Your task to perform on an android device: snooze an email in the gmail app Image 0: 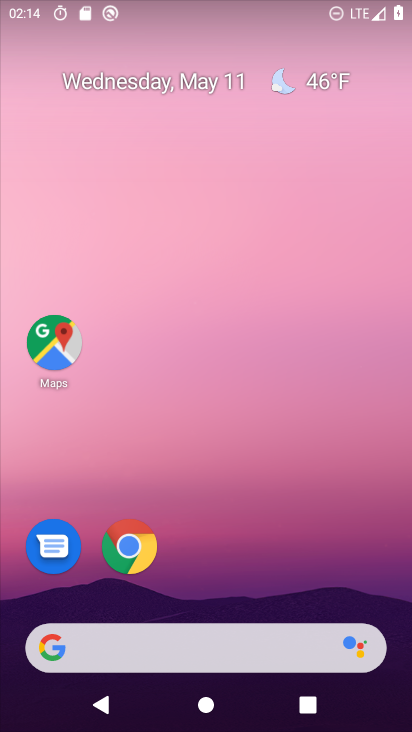
Step 0: drag from (294, 675) to (206, 193)
Your task to perform on an android device: snooze an email in the gmail app Image 1: 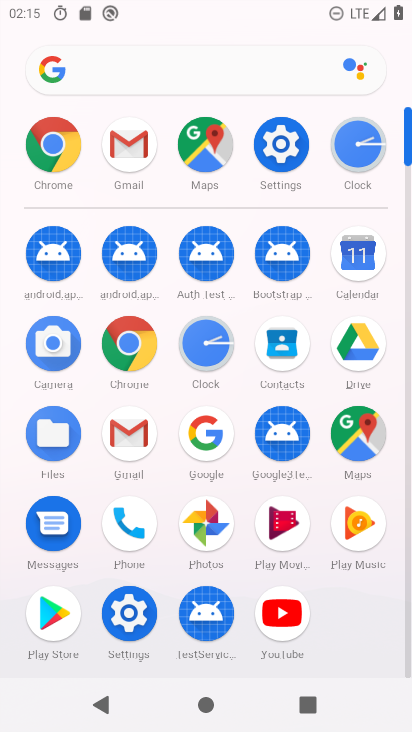
Step 1: click (110, 441)
Your task to perform on an android device: snooze an email in the gmail app Image 2: 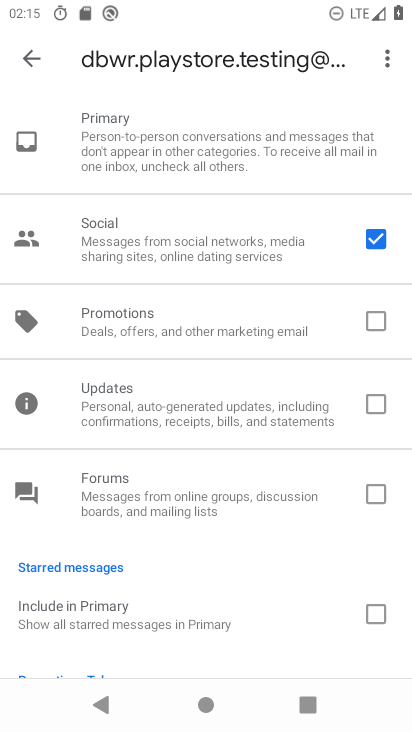
Step 2: click (30, 55)
Your task to perform on an android device: snooze an email in the gmail app Image 3: 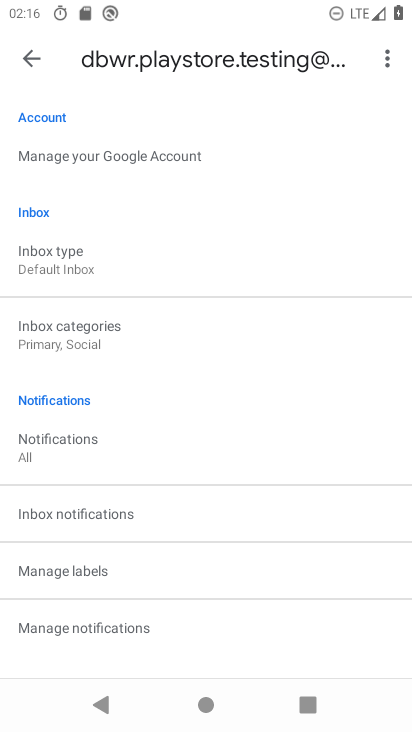
Step 3: click (21, 67)
Your task to perform on an android device: snooze an email in the gmail app Image 4: 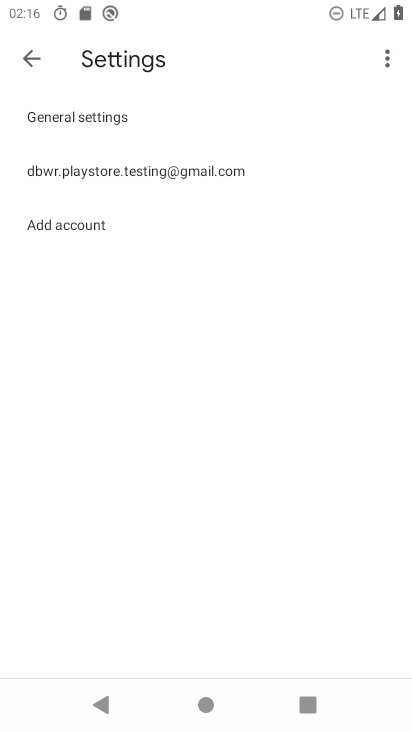
Step 4: click (35, 75)
Your task to perform on an android device: snooze an email in the gmail app Image 5: 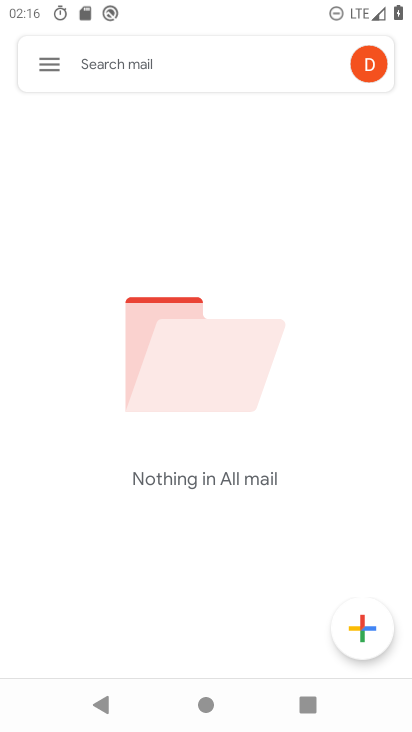
Step 5: click (41, 68)
Your task to perform on an android device: snooze an email in the gmail app Image 6: 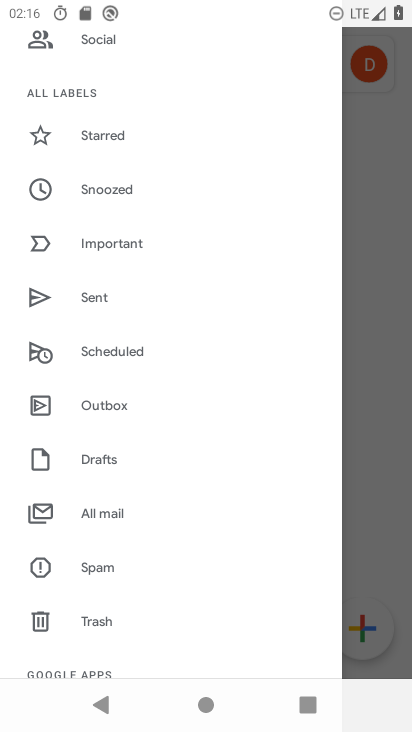
Step 6: click (108, 190)
Your task to perform on an android device: snooze an email in the gmail app Image 7: 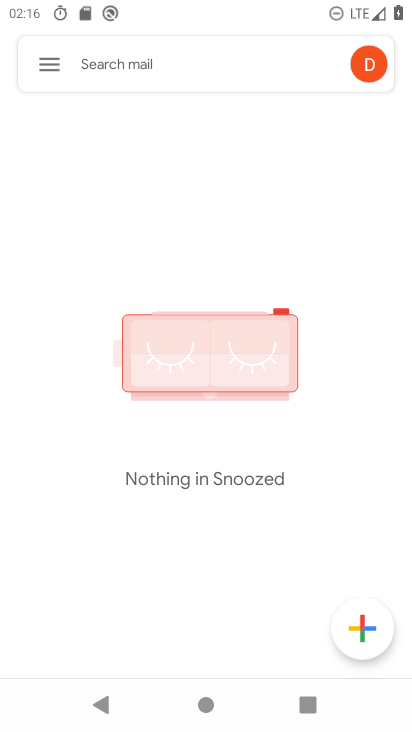
Step 7: task complete